Your task to perform on an android device: find photos in the google photos app Image 0: 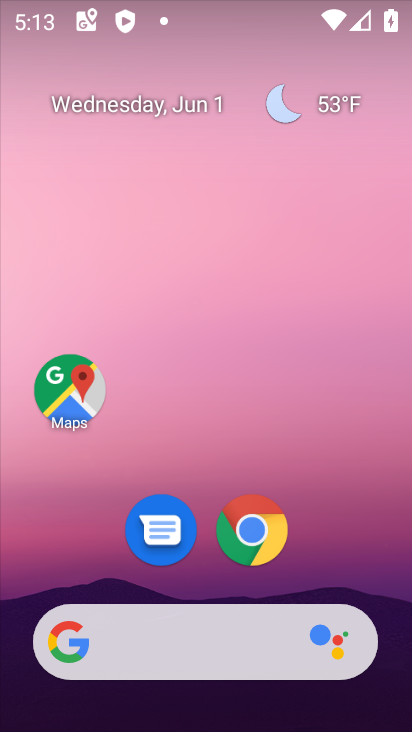
Step 0: drag from (313, 570) to (319, 202)
Your task to perform on an android device: find photos in the google photos app Image 1: 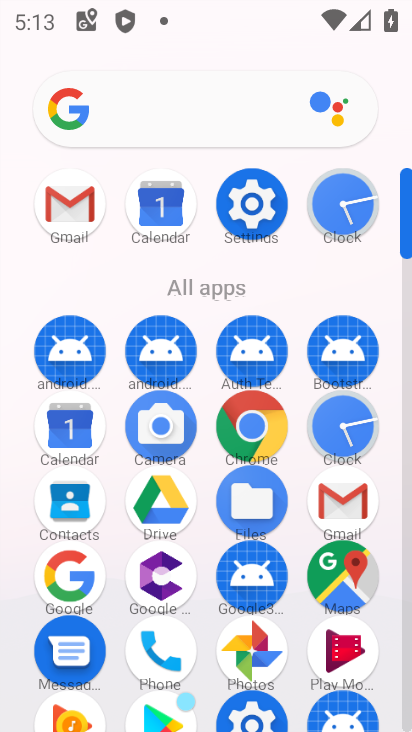
Step 1: click (256, 645)
Your task to perform on an android device: find photos in the google photos app Image 2: 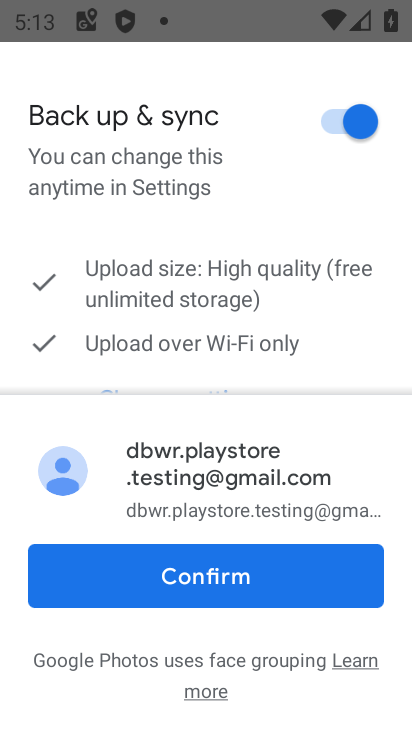
Step 2: click (224, 583)
Your task to perform on an android device: find photos in the google photos app Image 3: 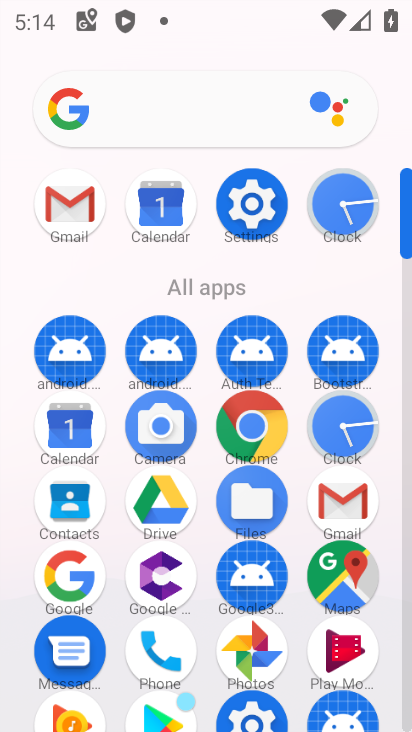
Step 3: click (245, 654)
Your task to perform on an android device: find photos in the google photos app Image 4: 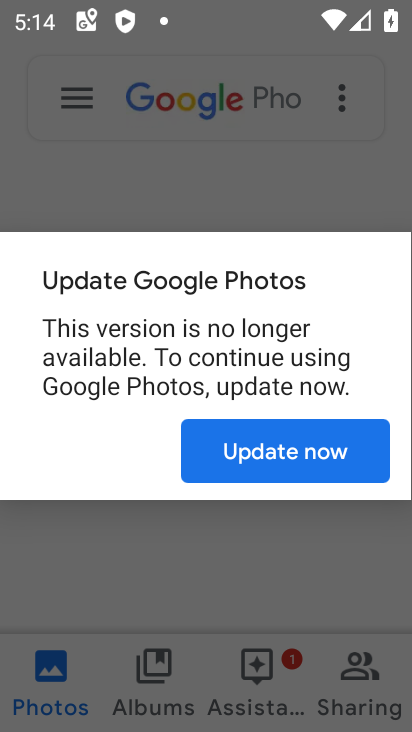
Step 4: click (288, 445)
Your task to perform on an android device: find photos in the google photos app Image 5: 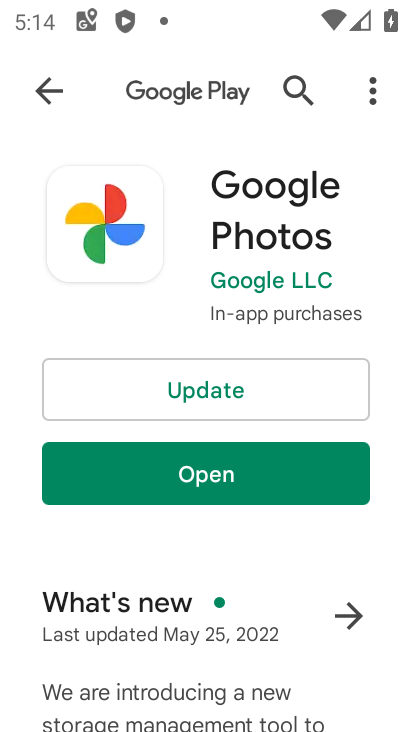
Step 5: click (198, 396)
Your task to perform on an android device: find photos in the google photos app Image 6: 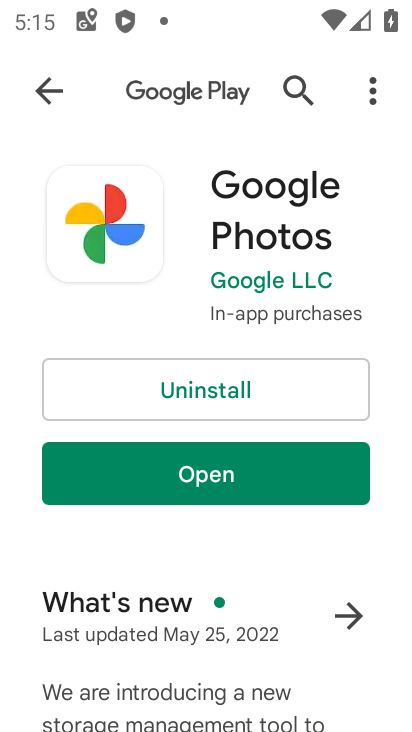
Step 6: click (242, 470)
Your task to perform on an android device: find photos in the google photos app Image 7: 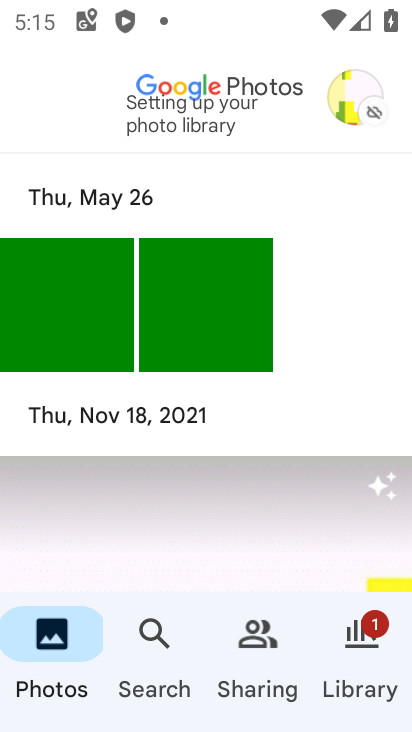
Step 7: task complete